Your task to perform on an android device: toggle improve location accuracy Image 0: 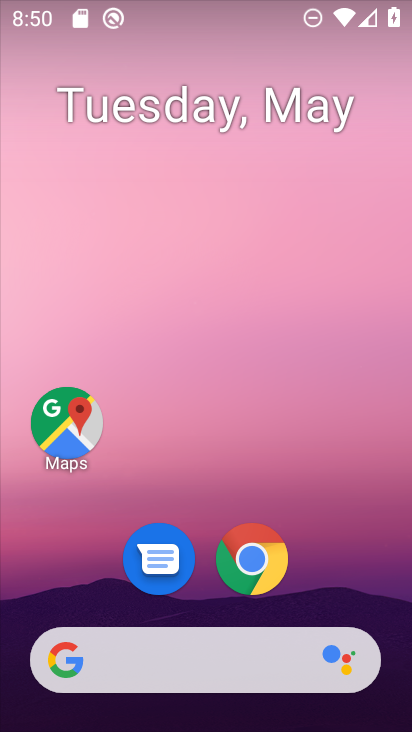
Step 0: drag from (206, 611) to (289, 51)
Your task to perform on an android device: toggle improve location accuracy Image 1: 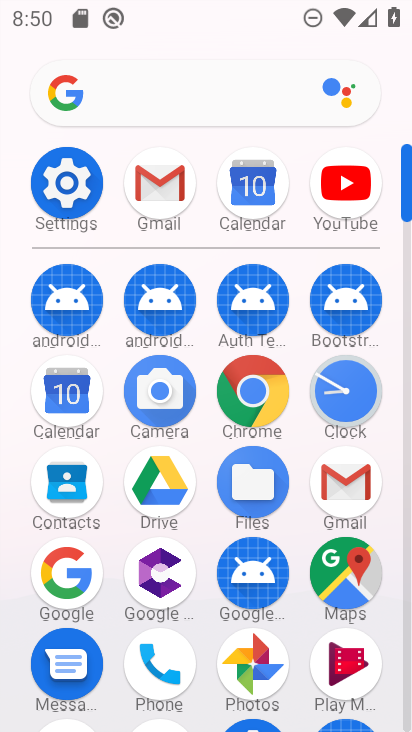
Step 1: click (76, 188)
Your task to perform on an android device: toggle improve location accuracy Image 2: 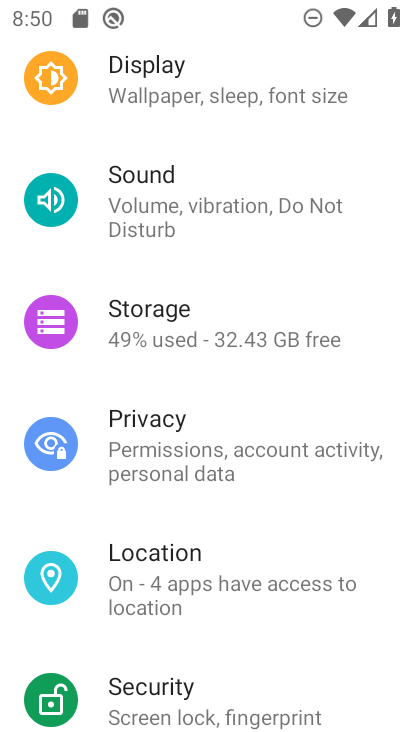
Step 2: click (101, 551)
Your task to perform on an android device: toggle improve location accuracy Image 3: 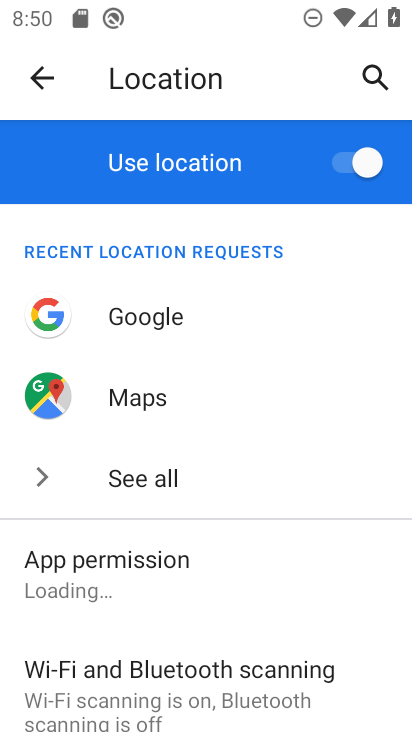
Step 3: drag from (125, 666) to (233, 267)
Your task to perform on an android device: toggle improve location accuracy Image 4: 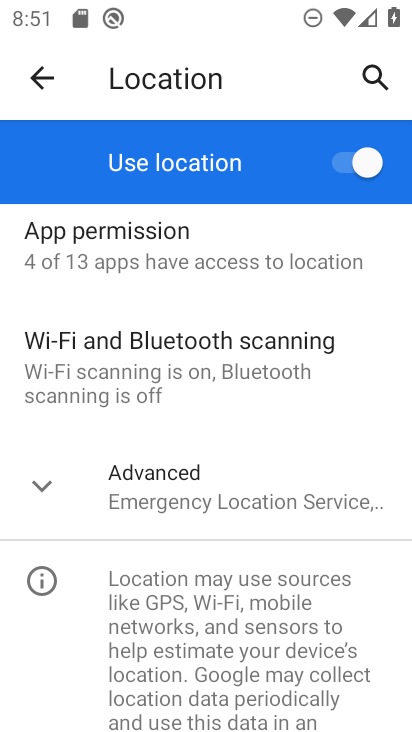
Step 4: click (156, 502)
Your task to perform on an android device: toggle improve location accuracy Image 5: 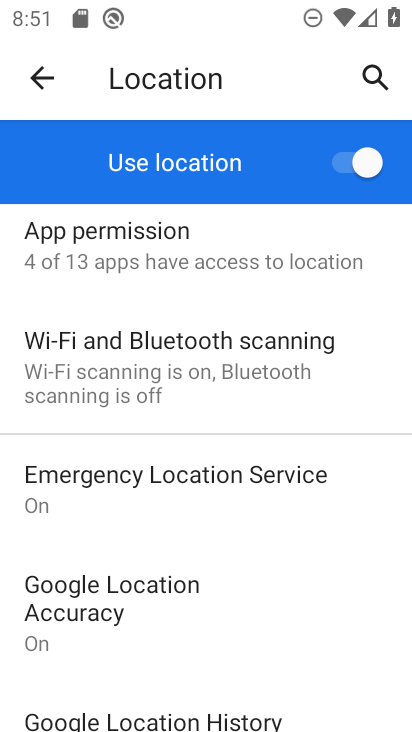
Step 5: click (126, 613)
Your task to perform on an android device: toggle improve location accuracy Image 6: 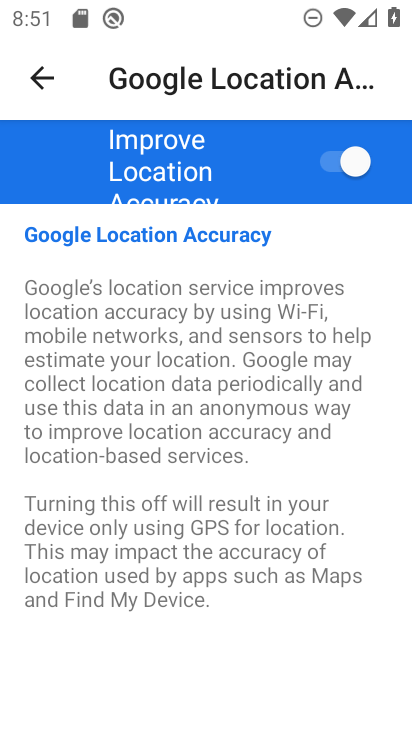
Step 6: click (334, 163)
Your task to perform on an android device: toggle improve location accuracy Image 7: 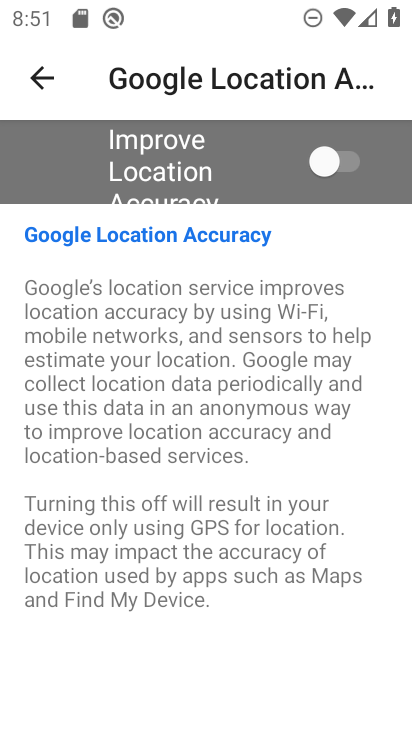
Step 7: task complete